Your task to perform on an android device: install app "Pluto TV - Live TV and Movies" Image 0: 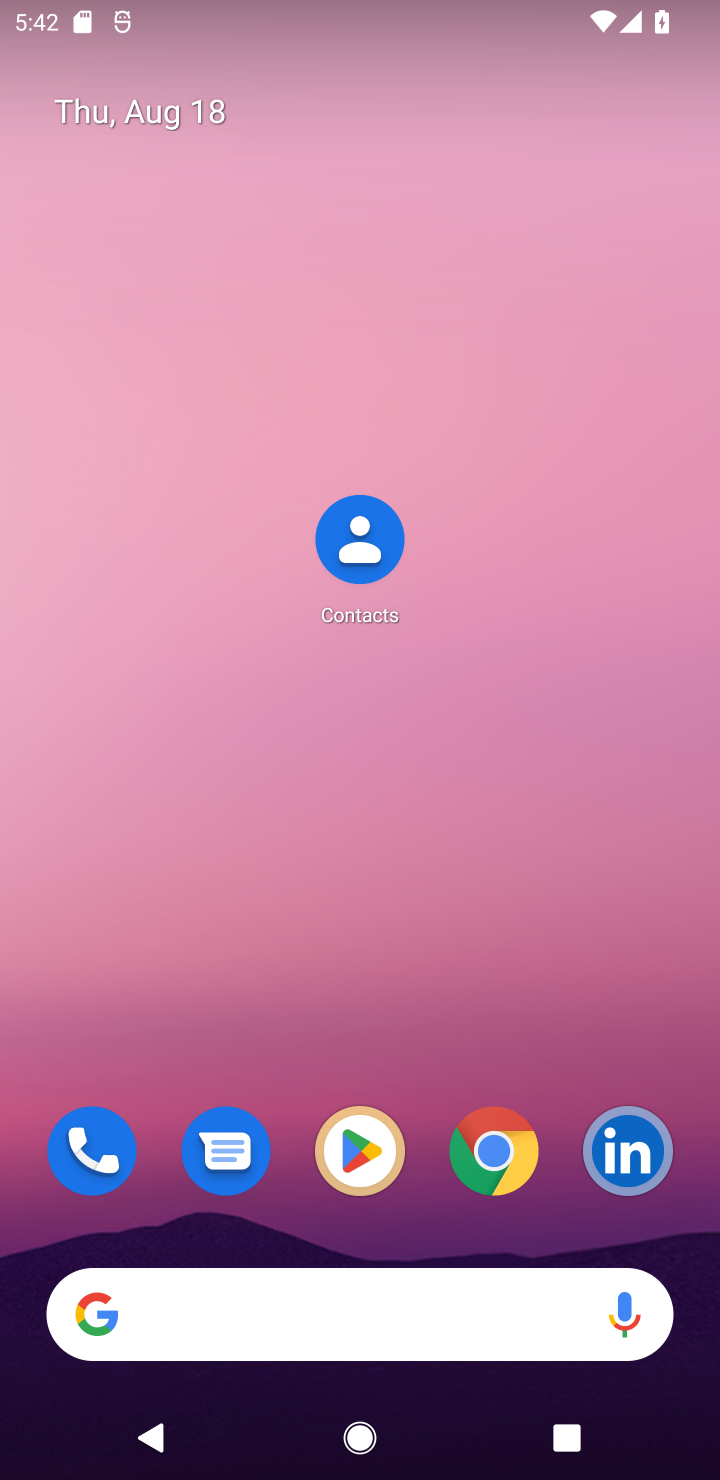
Step 0: click (331, 1191)
Your task to perform on an android device: install app "Pluto TV - Live TV and Movies" Image 1: 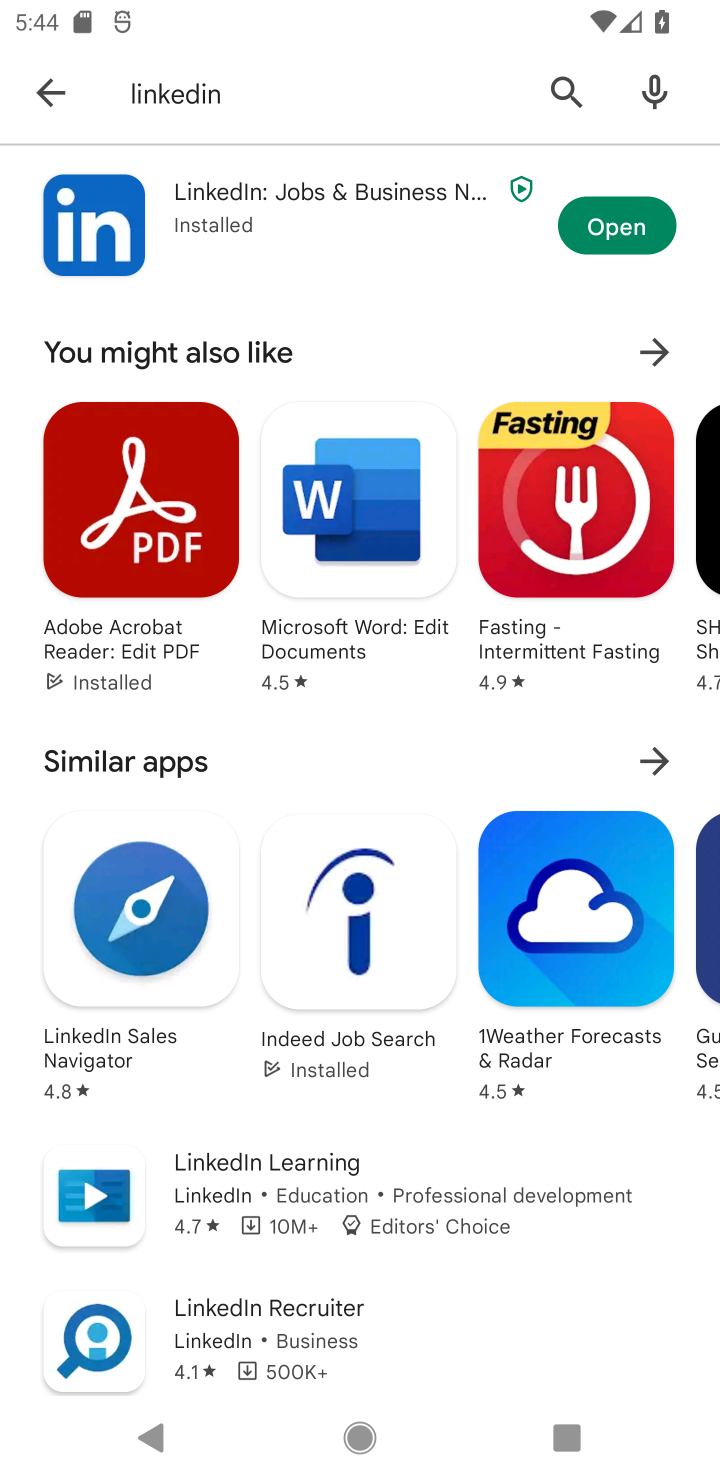
Step 1: click (586, 100)
Your task to perform on an android device: install app "Pluto TV - Live TV and Movies" Image 2: 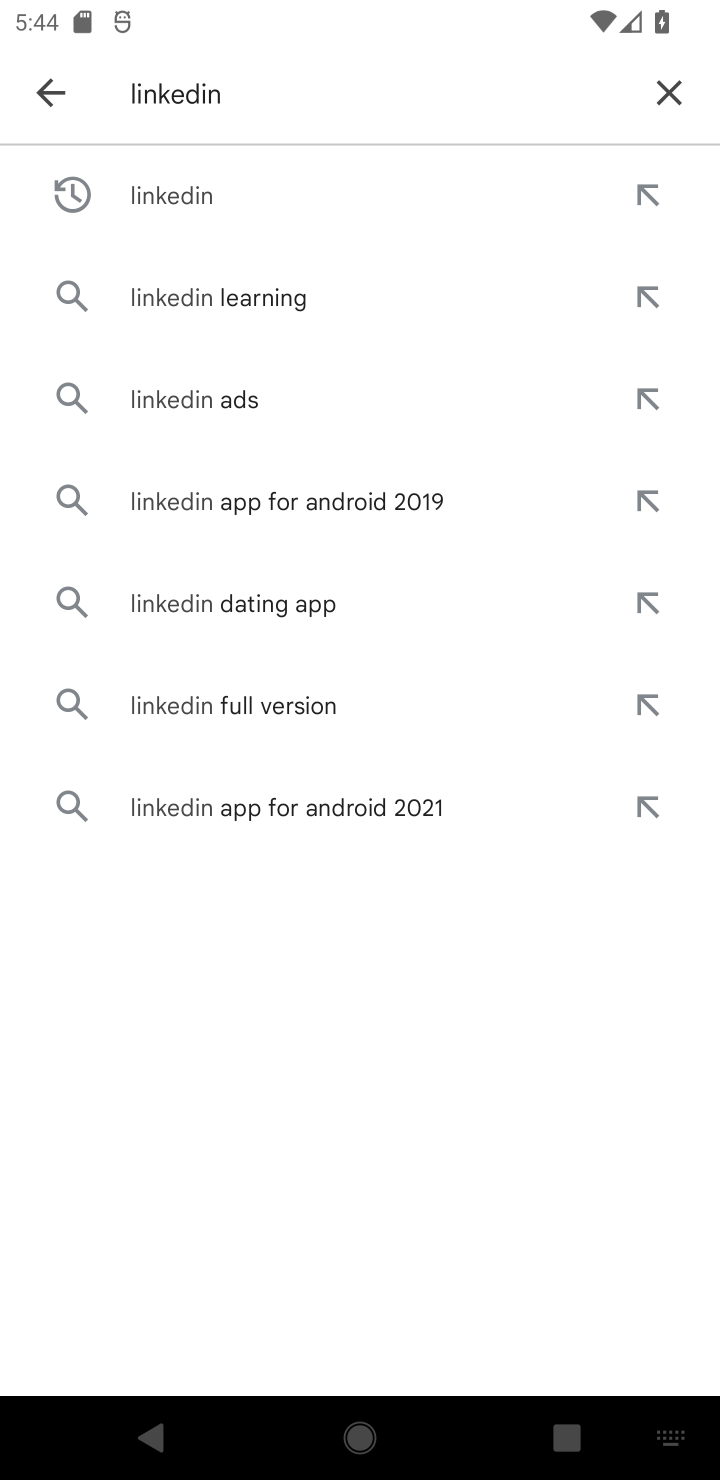
Step 2: click (671, 105)
Your task to perform on an android device: install app "Pluto TV - Live TV and Movies" Image 3: 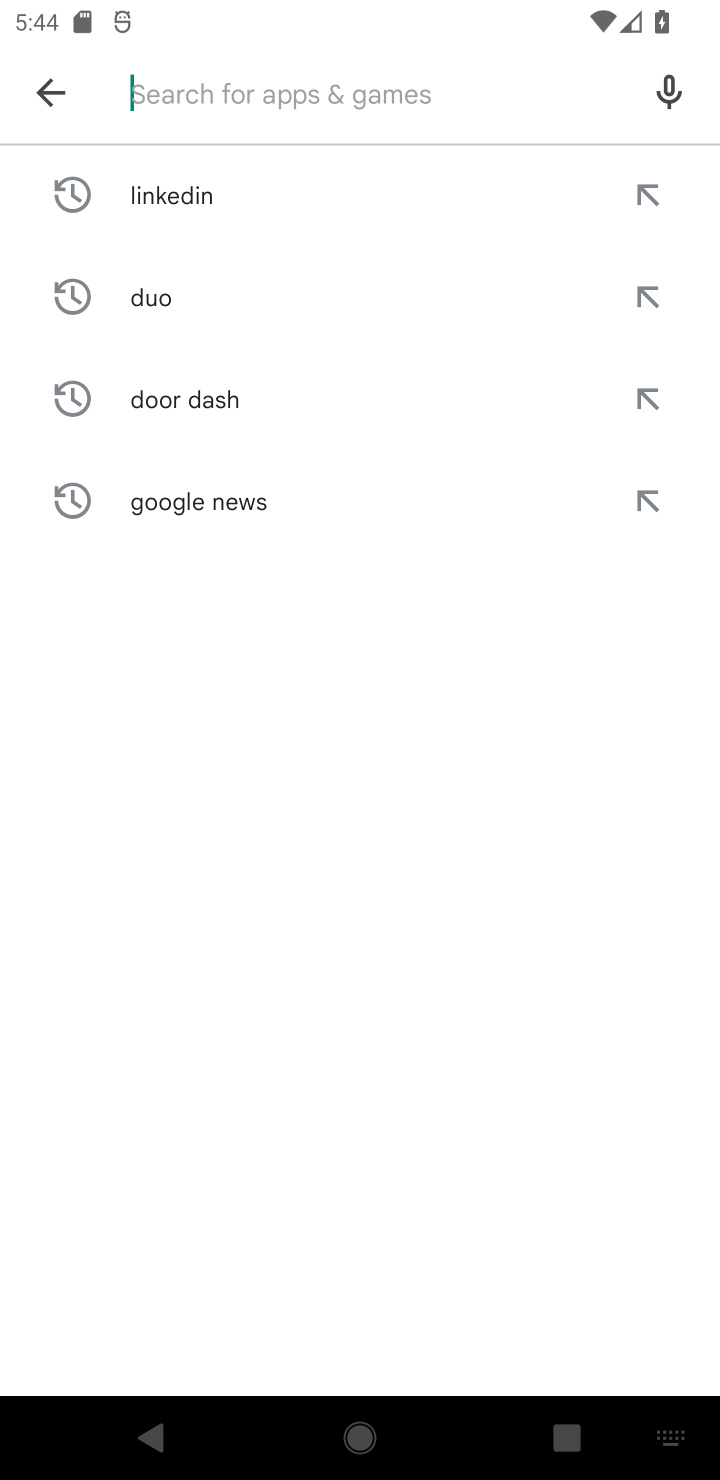
Step 3: type "pluto tv"
Your task to perform on an android device: install app "Pluto TV - Live TV and Movies" Image 4: 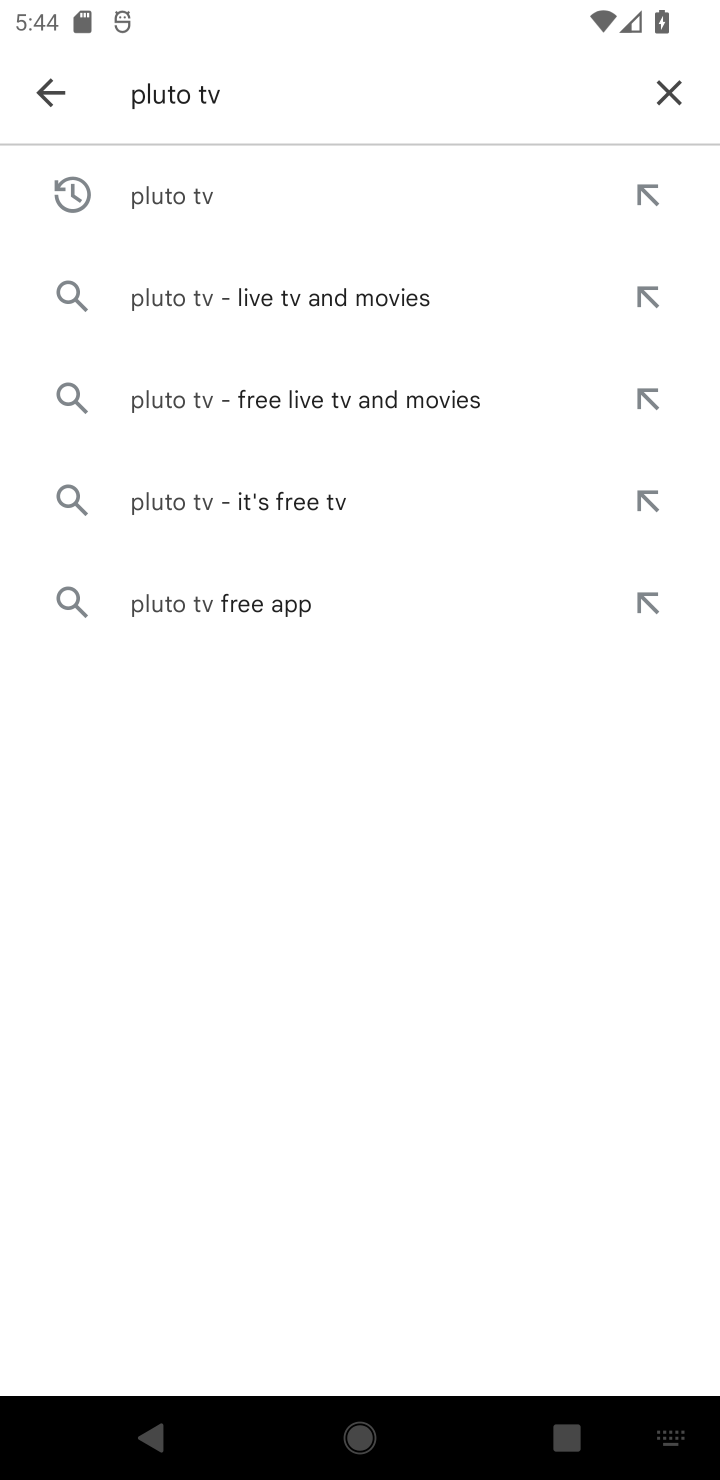
Step 4: click (336, 188)
Your task to perform on an android device: install app "Pluto TV - Live TV and Movies" Image 5: 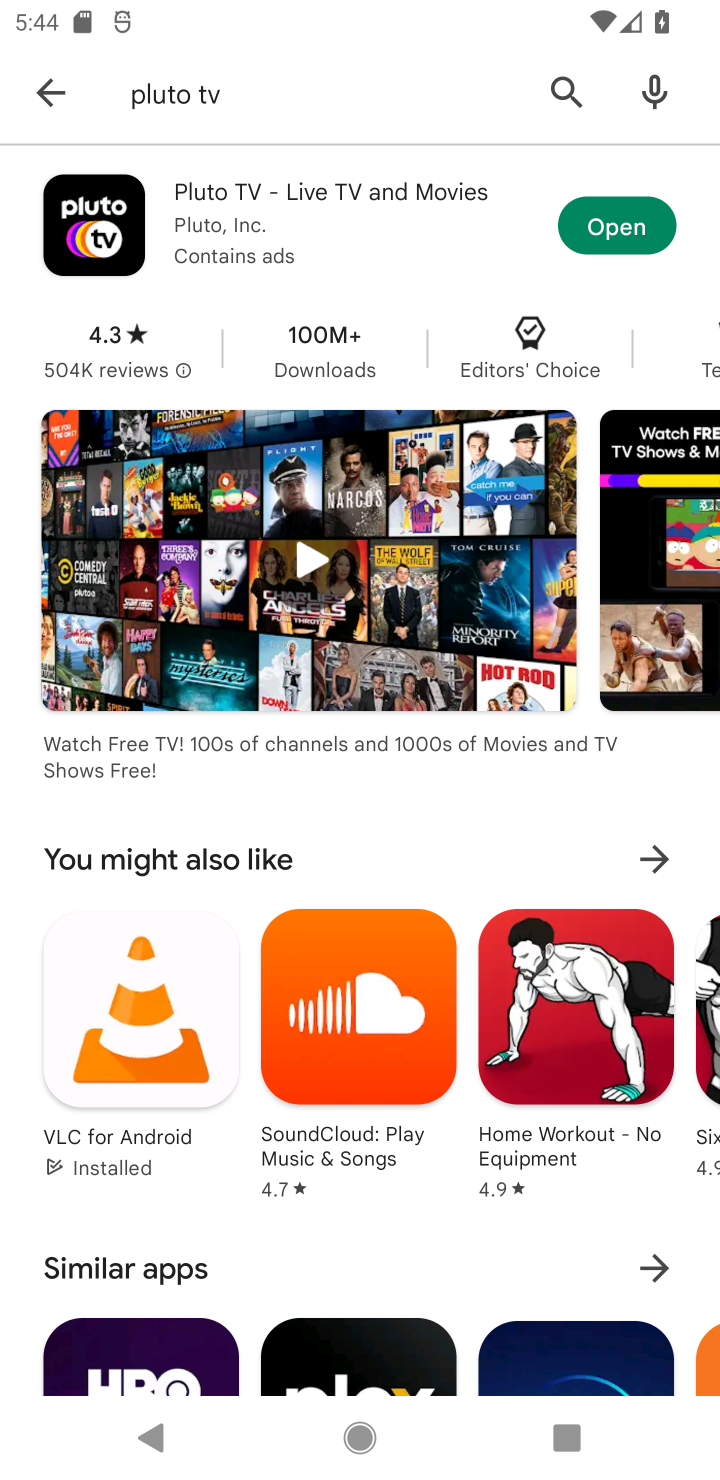
Step 5: click (572, 212)
Your task to perform on an android device: install app "Pluto TV - Live TV and Movies" Image 6: 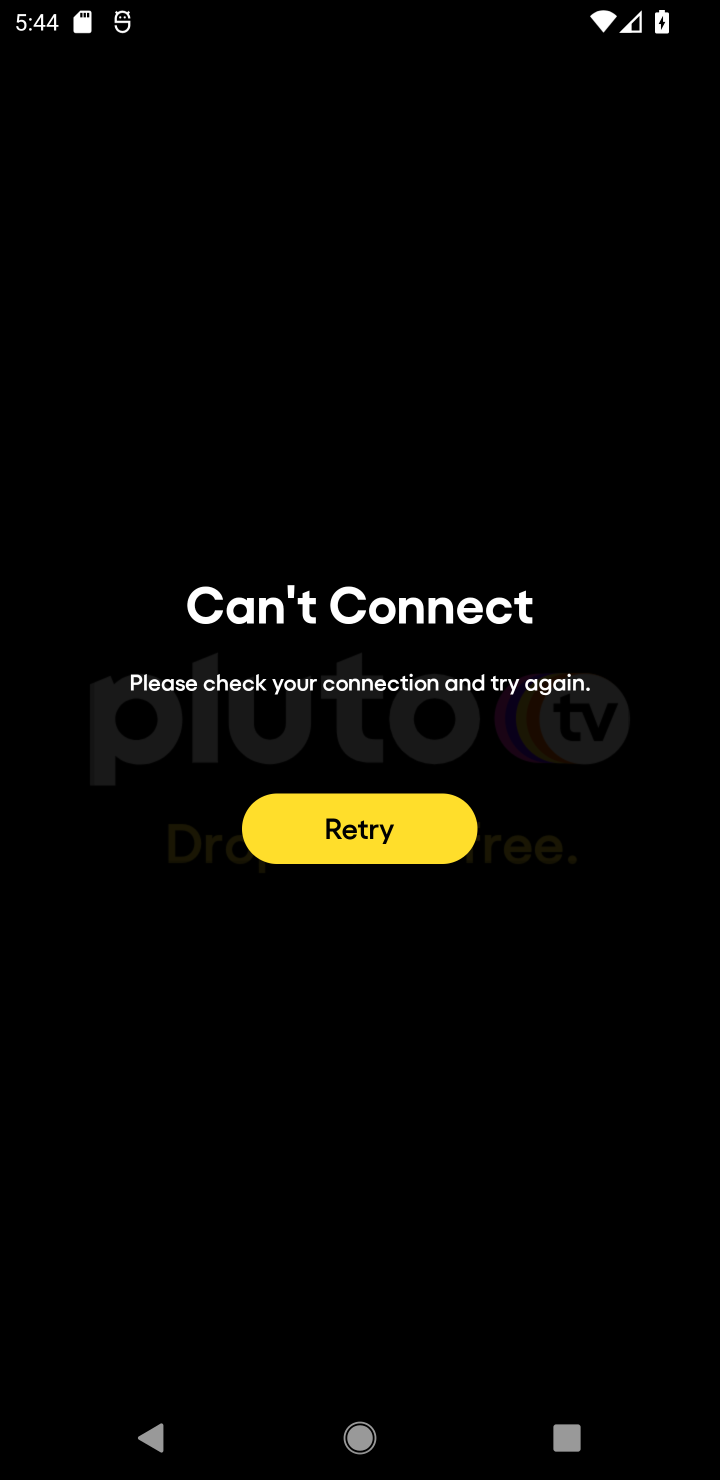
Step 6: task complete